Your task to perform on an android device: open chrome privacy settings Image 0: 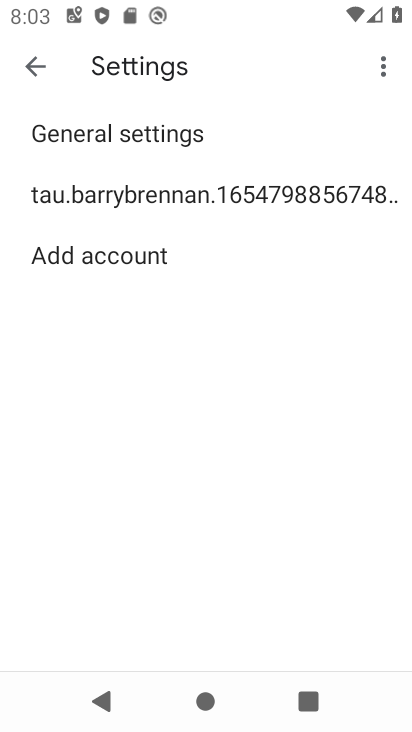
Step 0: press home button
Your task to perform on an android device: open chrome privacy settings Image 1: 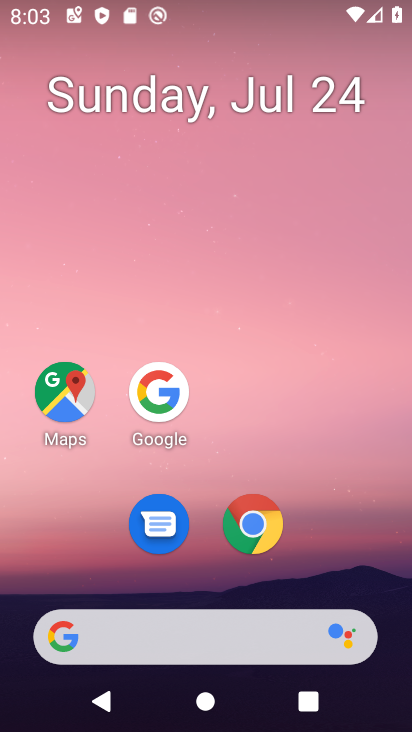
Step 1: click (253, 517)
Your task to perform on an android device: open chrome privacy settings Image 2: 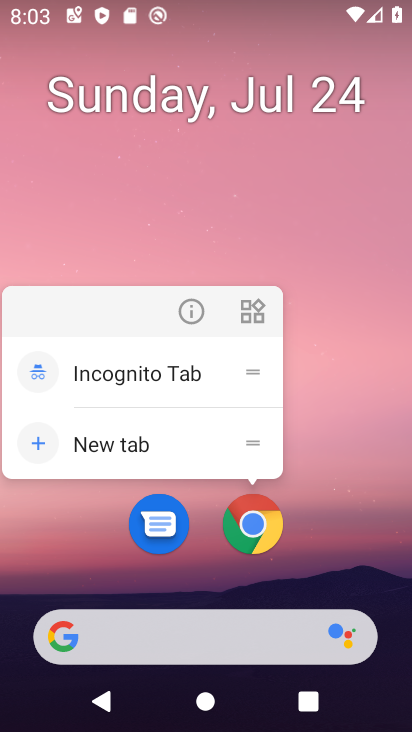
Step 2: click (250, 529)
Your task to perform on an android device: open chrome privacy settings Image 3: 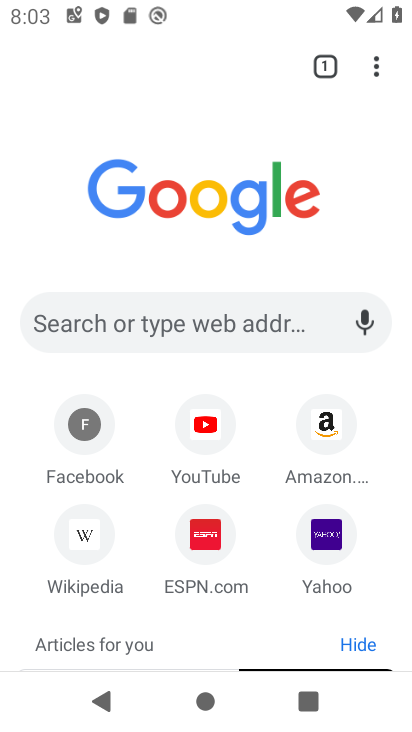
Step 3: drag from (378, 65) to (251, 566)
Your task to perform on an android device: open chrome privacy settings Image 4: 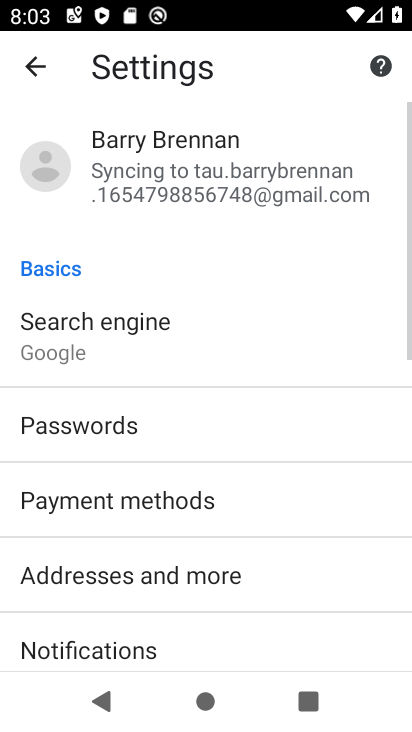
Step 4: drag from (238, 626) to (315, 228)
Your task to perform on an android device: open chrome privacy settings Image 5: 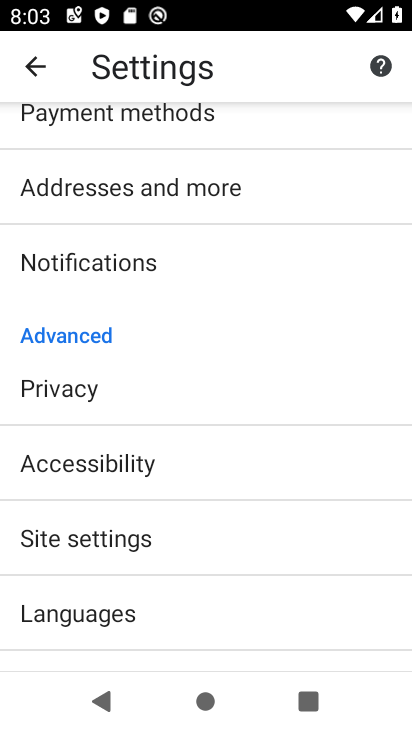
Step 5: click (78, 390)
Your task to perform on an android device: open chrome privacy settings Image 6: 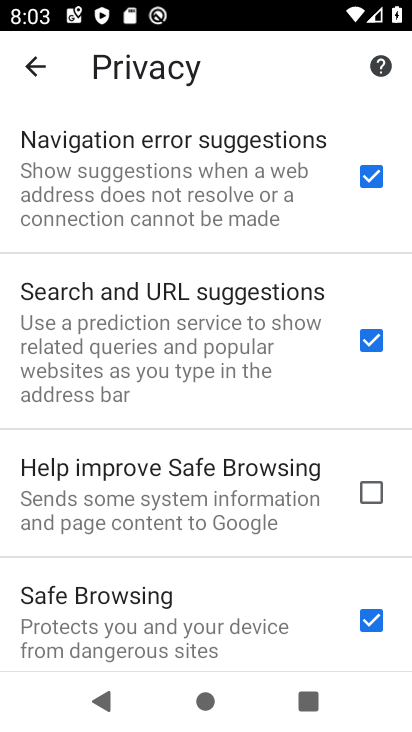
Step 6: task complete